Your task to perform on an android device: Is it going to rain today? Image 0: 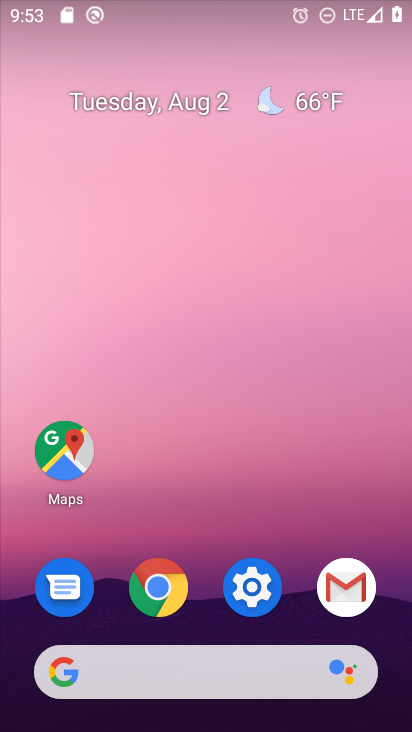
Step 0: click (158, 672)
Your task to perform on an android device: Is it going to rain today? Image 1: 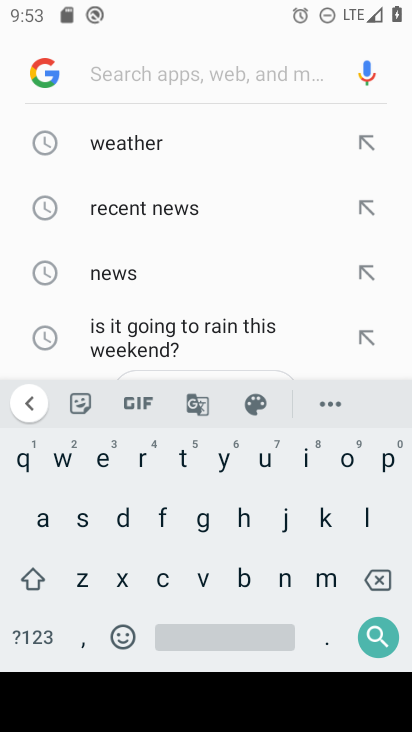
Step 1: click (306, 452)
Your task to perform on an android device: Is it going to rain today? Image 2: 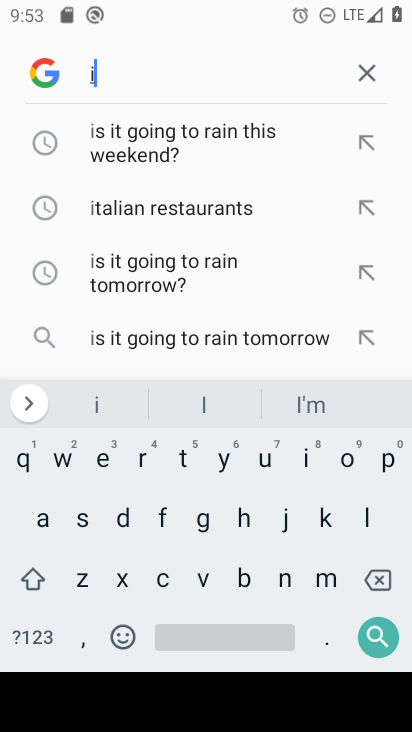
Step 2: click (75, 509)
Your task to perform on an android device: Is it going to rain today? Image 3: 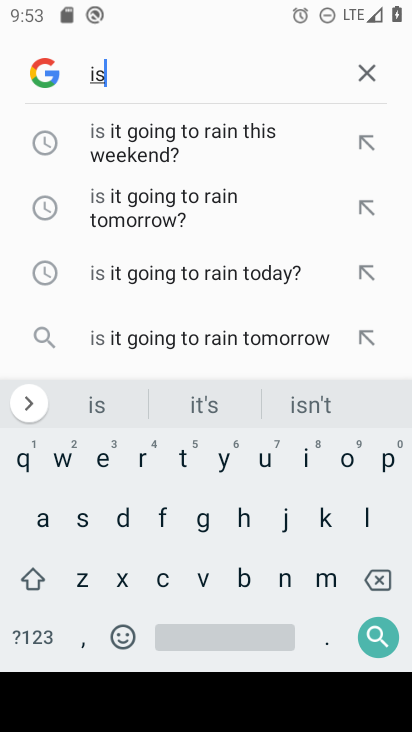
Step 3: click (101, 407)
Your task to perform on an android device: Is it going to rain today? Image 4: 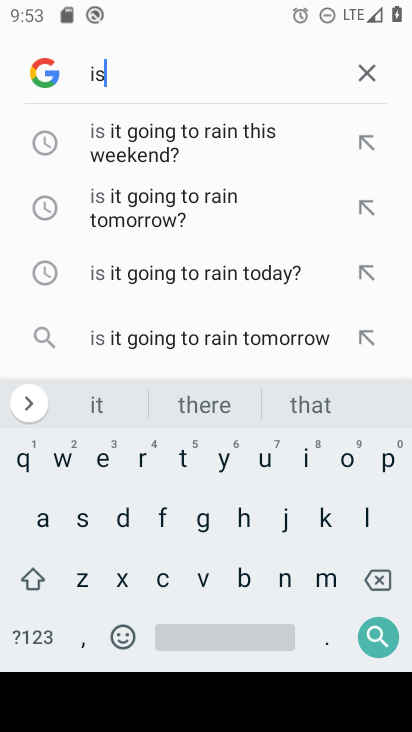
Step 4: click (203, 276)
Your task to perform on an android device: Is it going to rain today? Image 5: 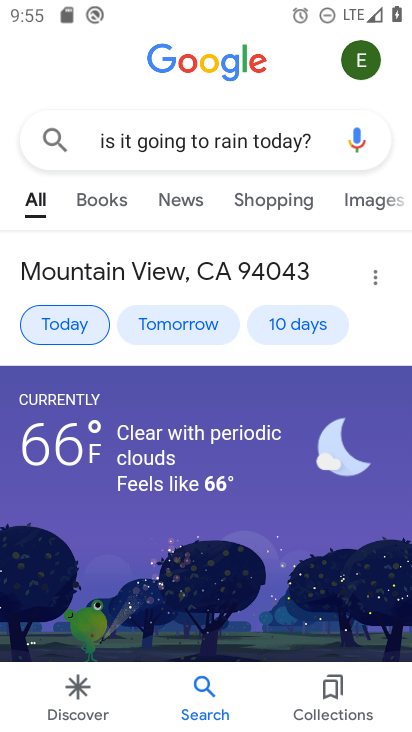
Step 5: task complete